Your task to perform on an android device: snooze an email in the gmail app Image 0: 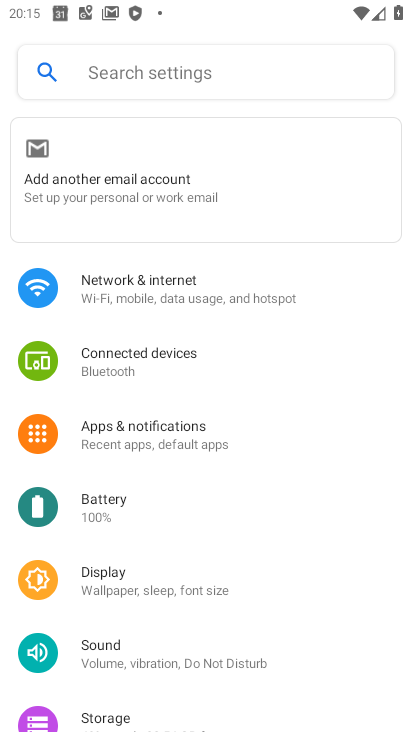
Step 0: press home button
Your task to perform on an android device: snooze an email in the gmail app Image 1: 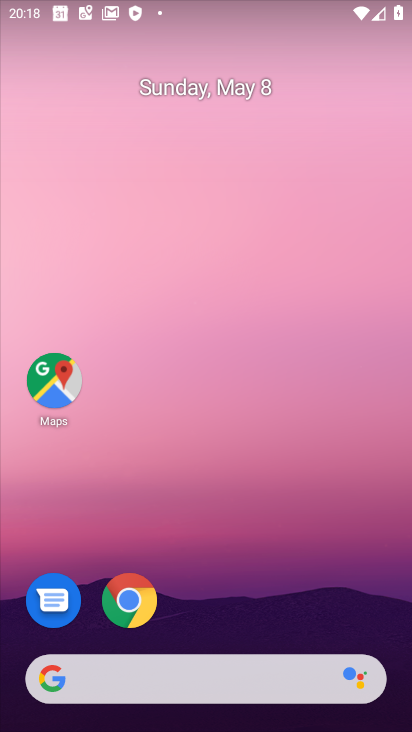
Step 1: drag from (274, 701) to (243, 271)
Your task to perform on an android device: snooze an email in the gmail app Image 2: 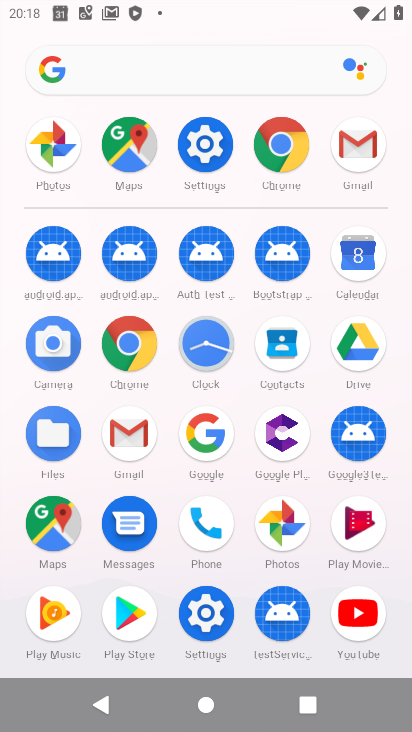
Step 2: click (359, 138)
Your task to perform on an android device: snooze an email in the gmail app Image 3: 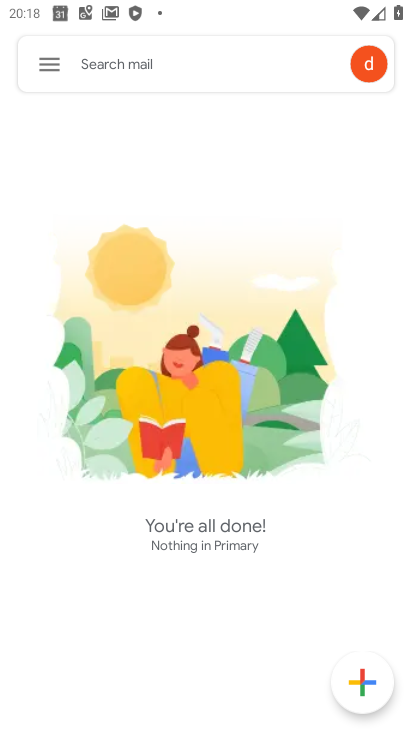
Step 3: click (52, 69)
Your task to perform on an android device: snooze an email in the gmail app Image 4: 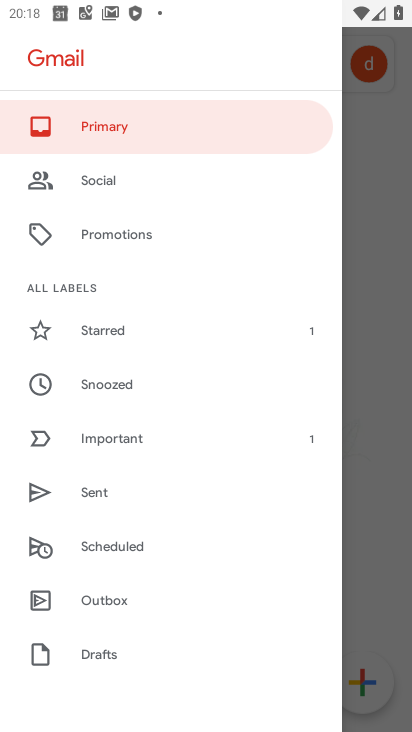
Step 4: click (133, 400)
Your task to perform on an android device: snooze an email in the gmail app Image 5: 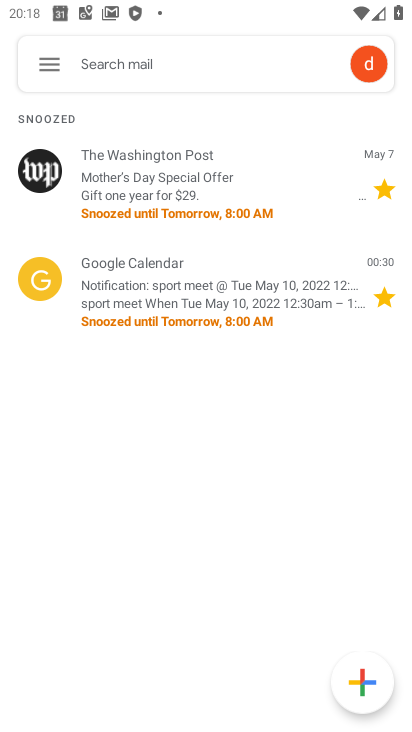
Step 5: task complete